Your task to perform on an android device: Open location settings Image 0: 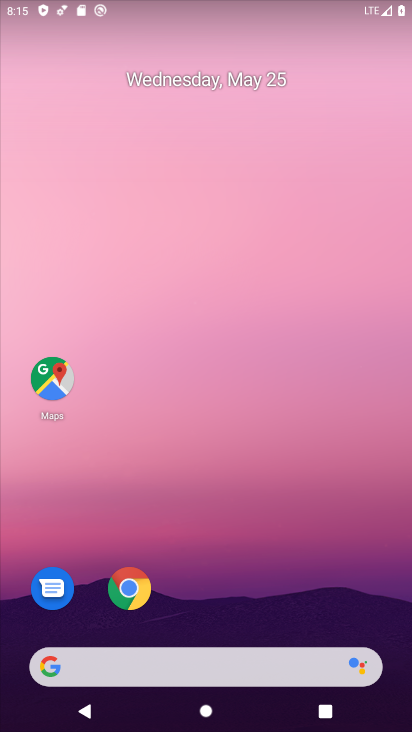
Step 0: press home button
Your task to perform on an android device: Open location settings Image 1: 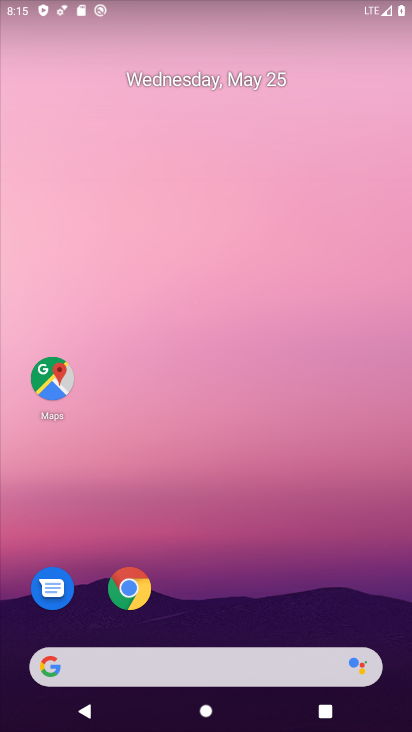
Step 1: drag from (15, 542) to (256, 63)
Your task to perform on an android device: Open location settings Image 2: 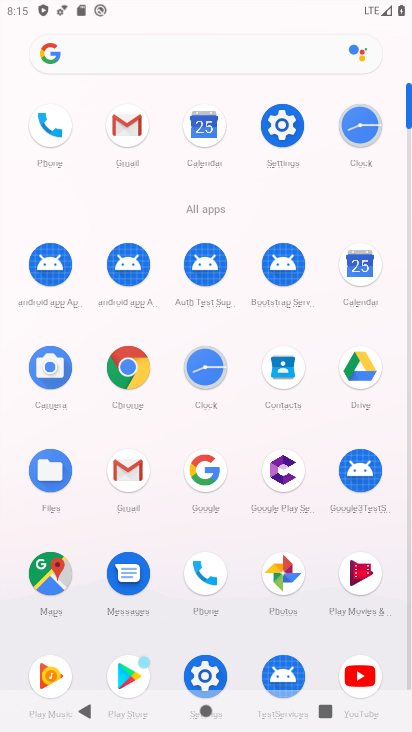
Step 2: click (265, 116)
Your task to perform on an android device: Open location settings Image 3: 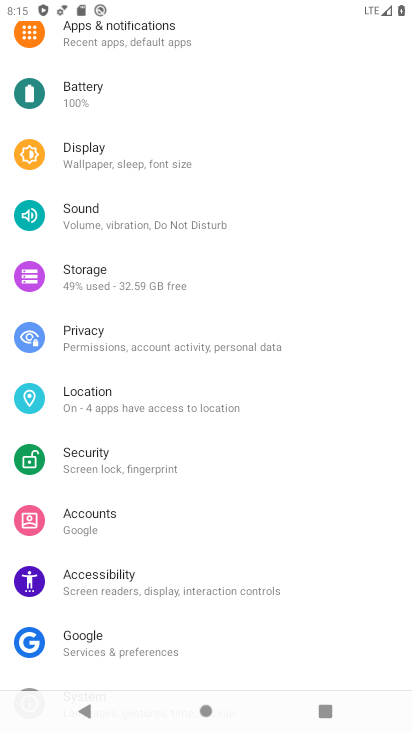
Step 3: click (103, 415)
Your task to perform on an android device: Open location settings Image 4: 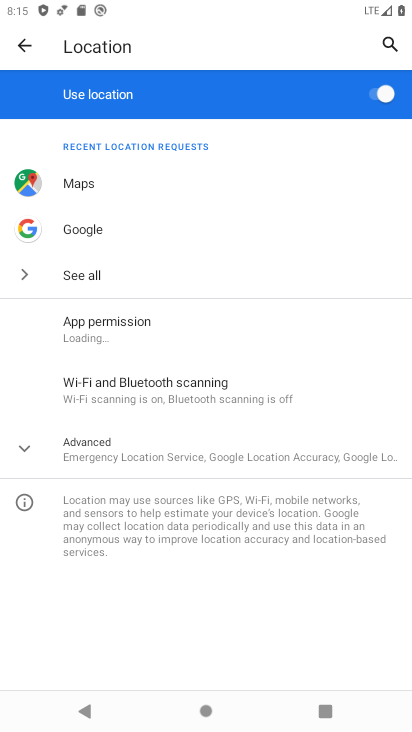
Step 4: task complete